Your task to perform on an android device: Open Chrome and go to the settings page Image 0: 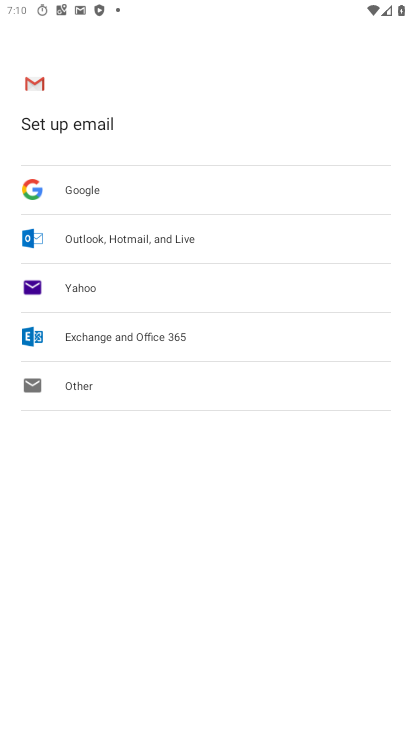
Step 0: press home button
Your task to perform on an android device: Open Chrome and go to the settings page Image 1: 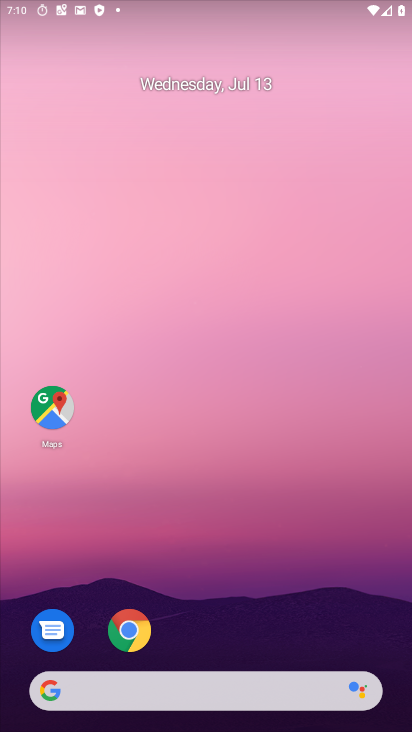
Step 1: drag from (333, 679) to (305, 97)
Your task to perform on an android device: Open Chrome and go to the settings page Image 2: 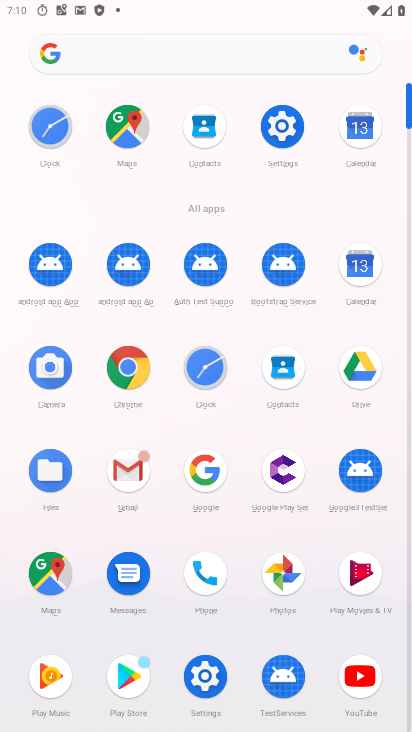
Step 2: click (118, 373)
Your task to perform on an android device: Open Chrome and go to the settings page Image 3: 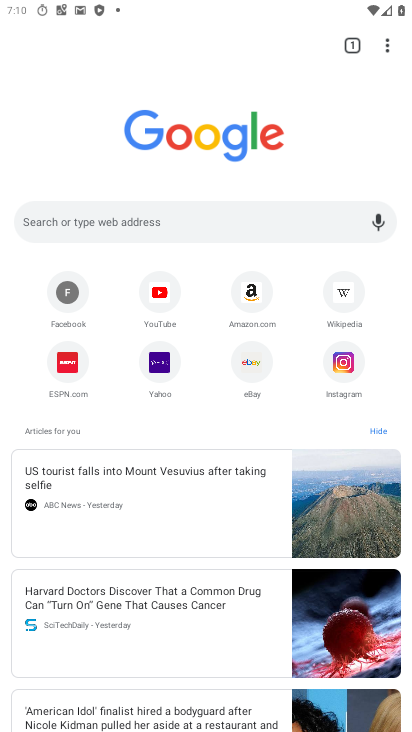
Step 3: click (386, 45)
Your task to perform on an android device: Open Chrome and go to the settings page Image 4: 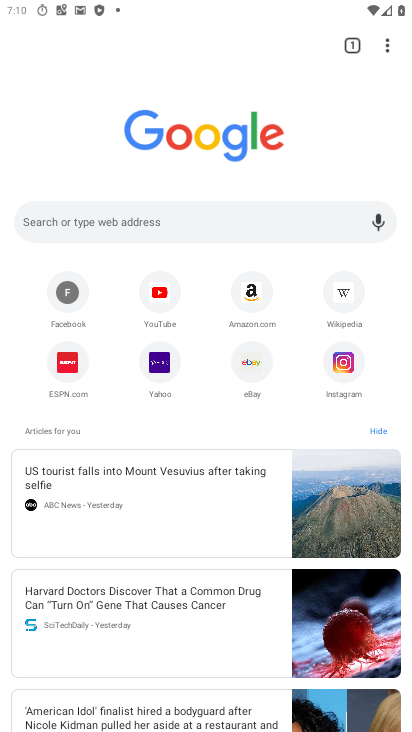
Step 4: click (387, 44)
Your task to perform on an android device: Open Chrome and go to the settings page Image 5: 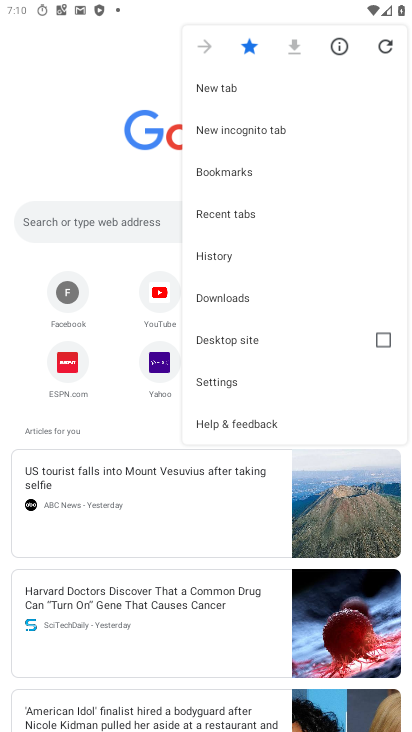
Step 5: click (211, 379)
Your task to perform on an android device: Open Chrome and go to the settings page Image 6: 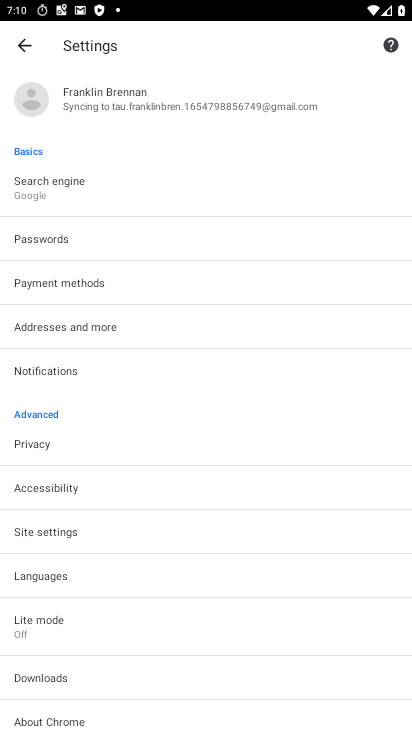
Step 6: task complete